Your task to perform on an android device: Open the calendar app, open the side menu, and click the "Day" option Image 0: 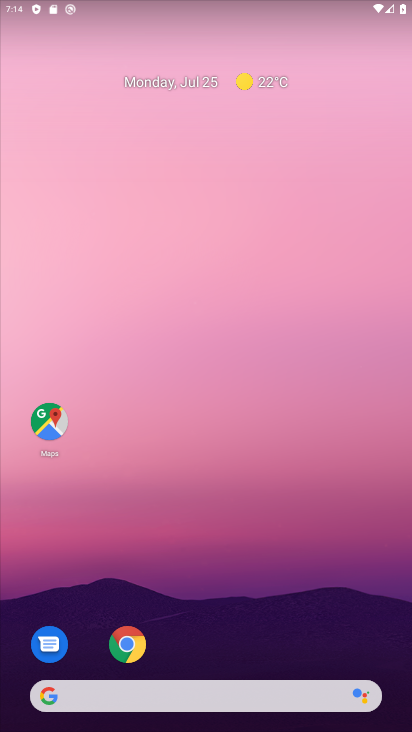
Step 0: drag from (225, 662) to (249, 85)
Your task to perform on an android device: Open the calendar app, open the side menu, and click the "Day" option Image 1: 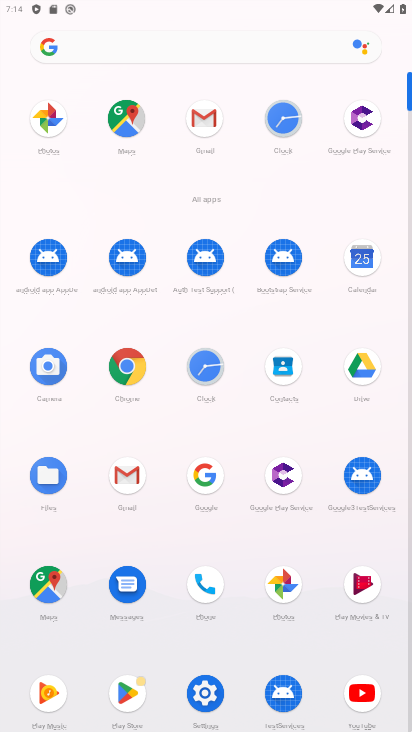
Step 1: click (362, 250)
Your task to perform on an android device: Open the calendar app, open the side menu, and click the "Day" option Image 2: 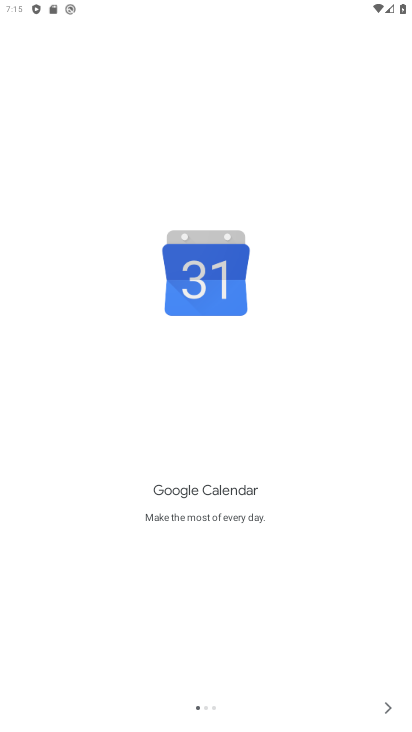
Step 2: click (386, 704)
Your task to perform on an android device: Open the calendar app, open the side menu, and click the "Day" option Image 3: 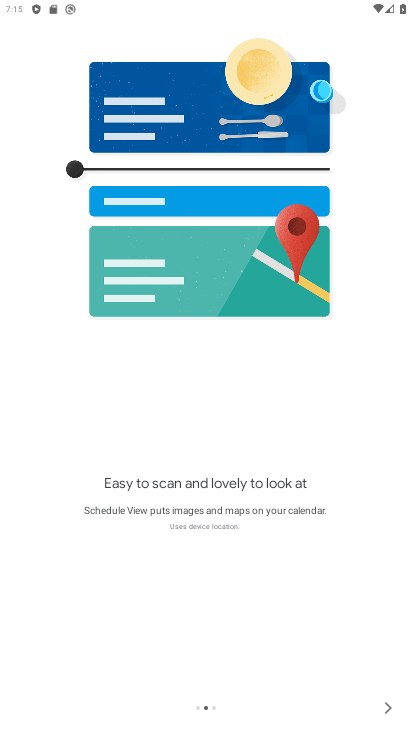
Step 3: click (386, 704)
Your task to perform on an android device: Open the calendar app, open the side menu, and click the "Day" option Image 4: 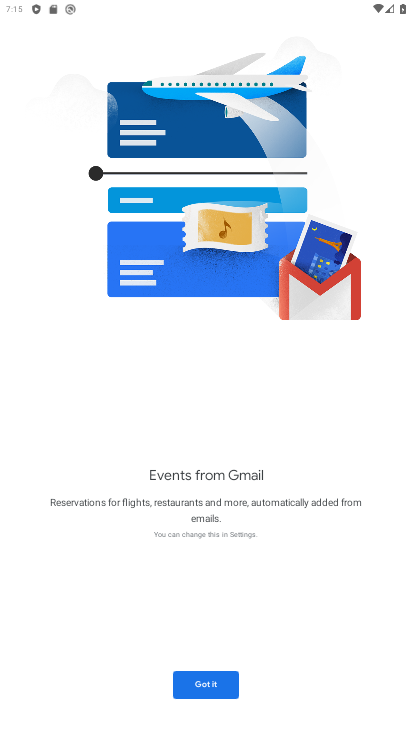
Step 4: click (202, 681)
Your task to perform on an android device: Open the calendar app, open the side menu, and click the "Day" option Image 5: 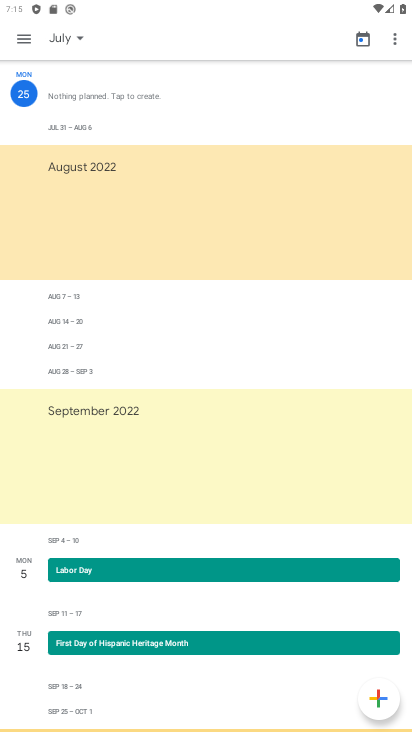
Step 5: click (22, 37)
Your task to perform on an android device: Open the calendar app, open the side menu, and click the "Day" option Image 6: 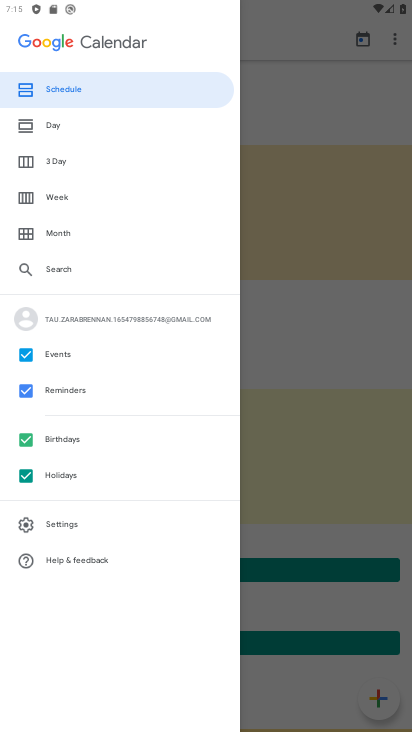
Step 6: click (63, 123)
Your task to perform on an android device: Open the calendar app, open the side menu, and click the "Day" option Image 7: 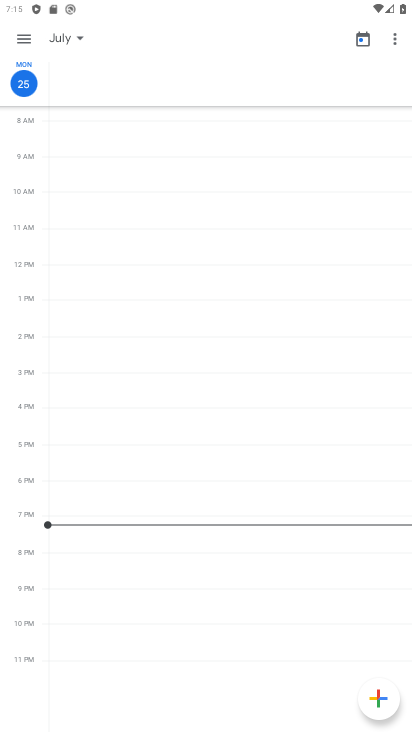
Step 7: task complete